Your task to perform on an android device: turn off location history Image 0: 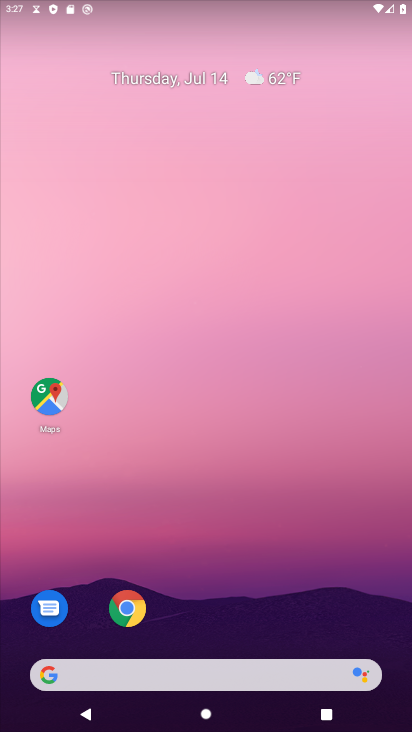
Step 0: drag from (197, 662) to (200, 238)
Your task to perform on an android device: turn off location history Image 1: 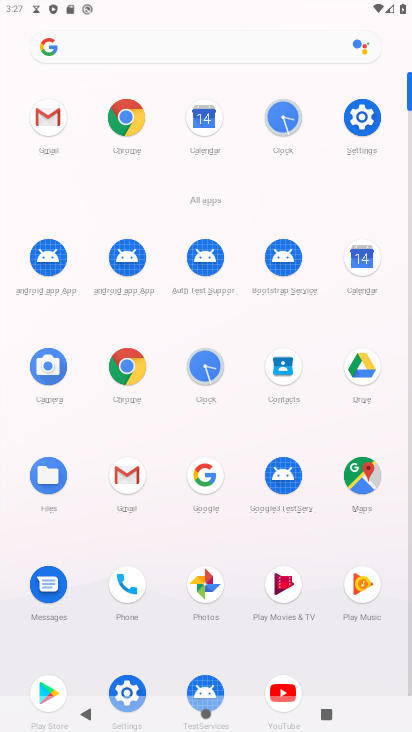
Step 1: click (365, 137)
Your task to perform on an android device: turn off location history Image 2: 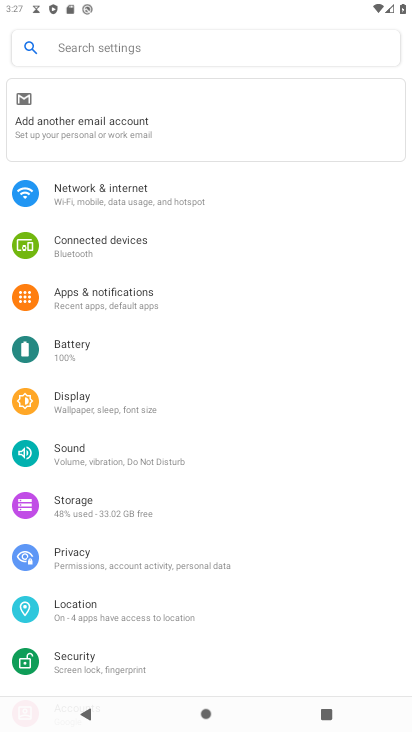
Step 2: click (94, 613)
Your task to perform on an android device: turn off location history Image 3: 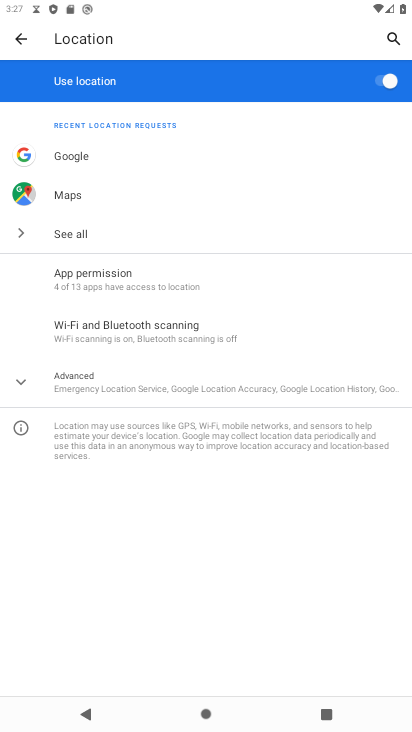
Step 3: click (65, 376)
Your task to perform on an android device: turn off location history Image 4: 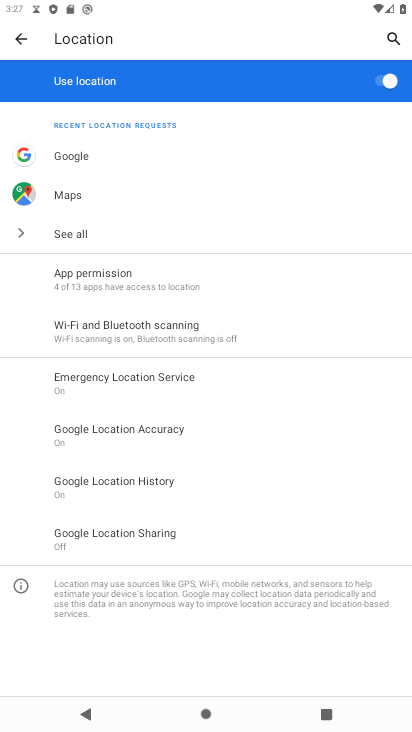
Step 4: click (147, 492)
Your task to perform on an android device: turn off location history Image 5: 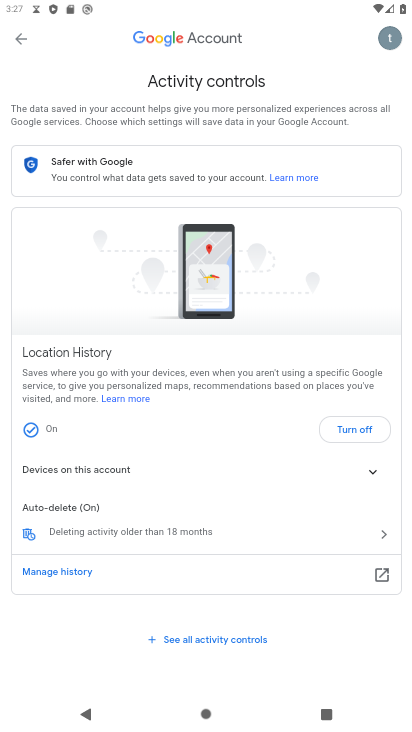
Step 5: click (361, 429)
Your task to perform on an android device: turn off location history Image 6: 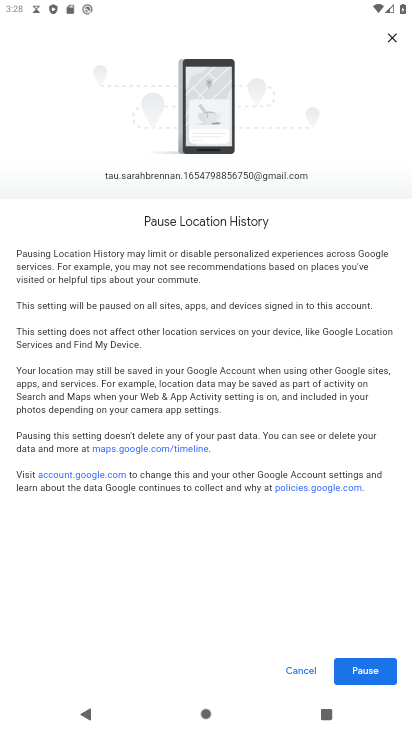
Step 6: click (367, 674)
Your task to perform on an android device: turn off location history Image 7: 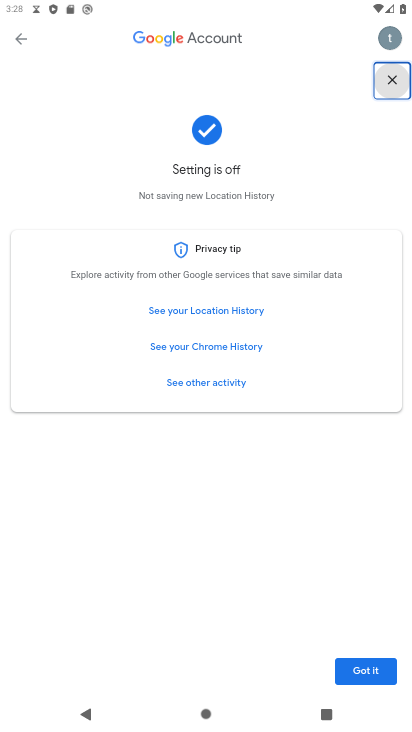
Step 7: click (372, 678)
Your task to perform on an android device: turn off location history Image 8: 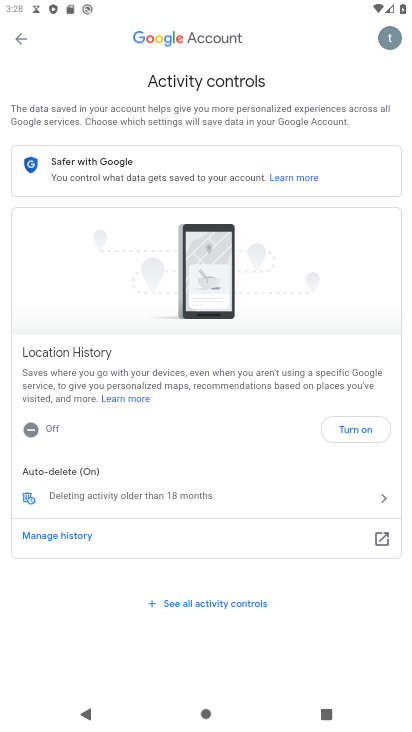
Step 8: task complete